Your task to perform on an android device: delete location history Image 0: 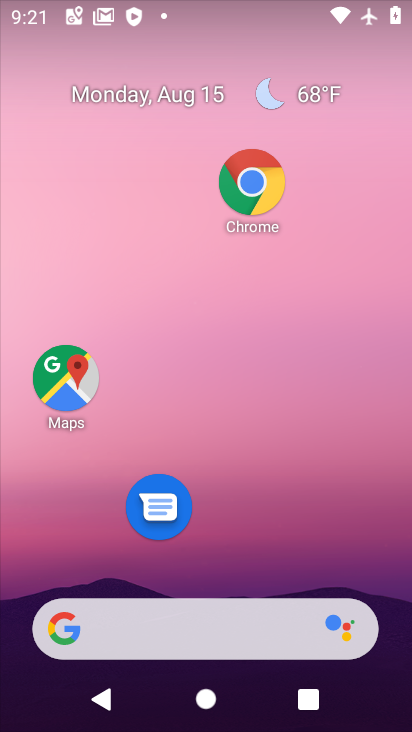
Step 0: drag from (280, 559) to (304, 23)
Your task to perform on an android device: delete location history Image 1: 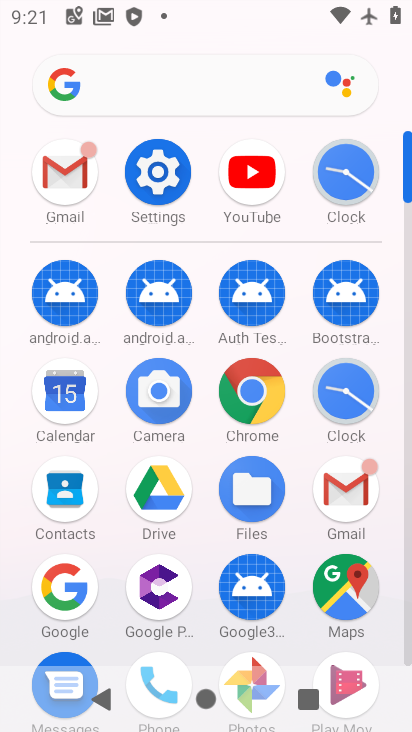
Step 1: click (142, 149)
Your task to perform on an android device: delete location history Image 2: 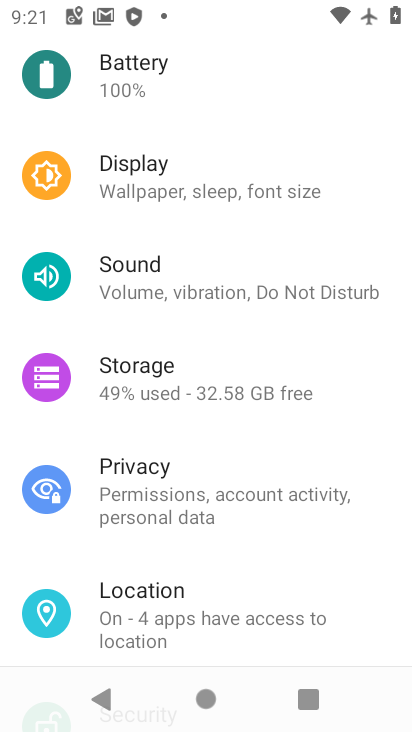
Step 2: click (136, 595)
Your task to perform on an android device: delete location history Image 3: 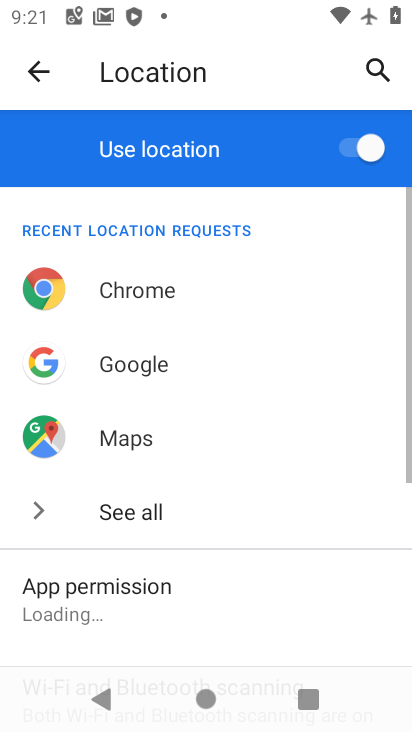
Step 3: task complete